Your task to perform on an android device: When is my next meeting? Image 0: 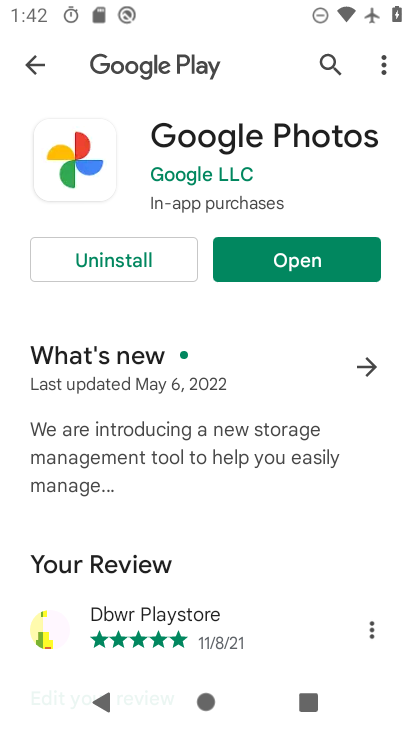
Step 0: press home button
Your task to perform on an android device: When is my next meeting? Image 1: 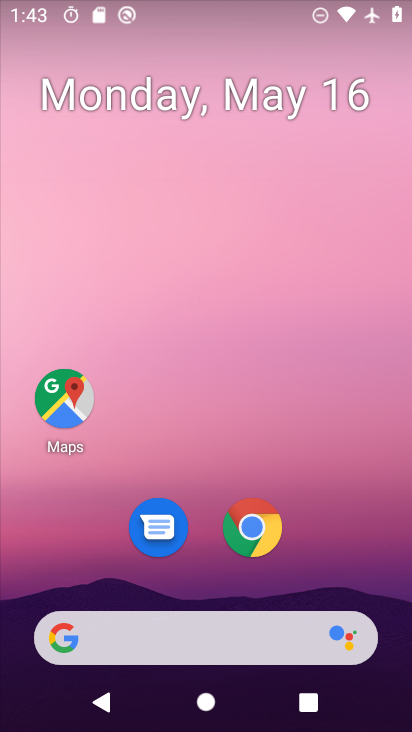
Step 1: drag from (136, 629) to (245, 220)
Your task to perform on an android device: When is my next meeting? Image 2: 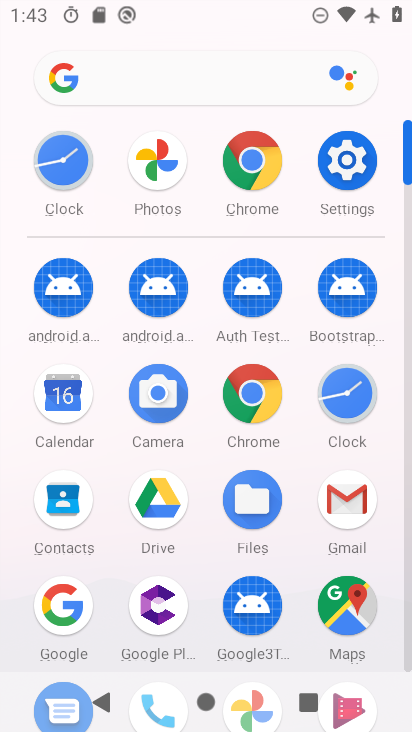
Step 2: click (64, 405)
Your task to perform on an android device: When is my next meeting? Image 3: 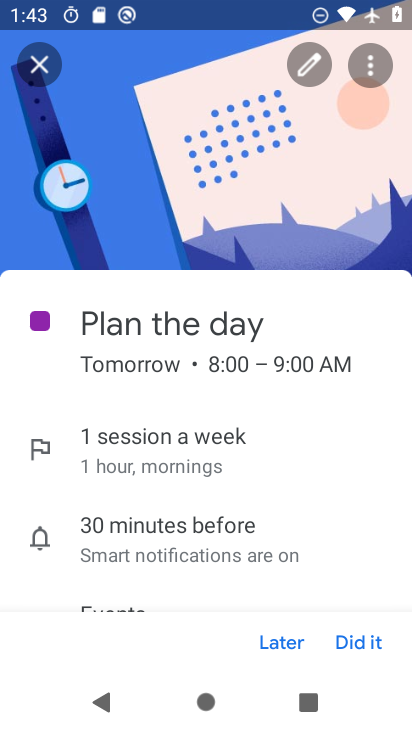
Step 3: click (37, 64)
Your task to perform on an android device: When is my next meeting? Image 4: 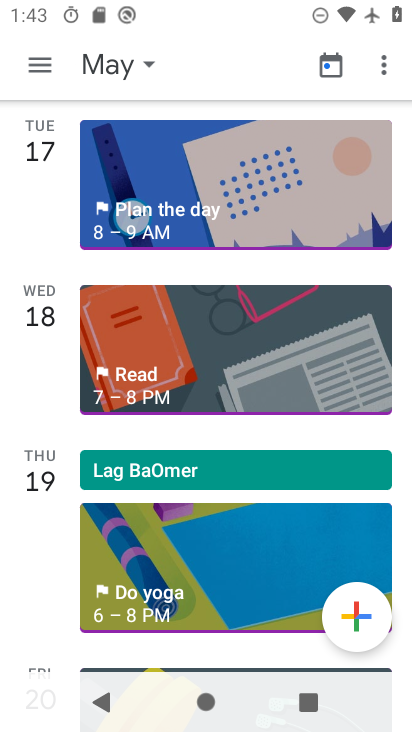
Step 4: task complete